Your task to perform on an android device: allow cookies in the chrome app Image 0: 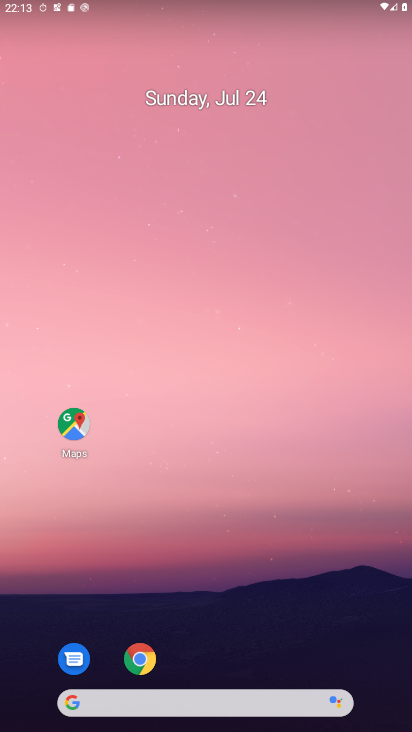
Step 0: drag from (220, 726) to (188, 115)
Your task to perform on an android device: allow cookies in the chrome app Image 1: 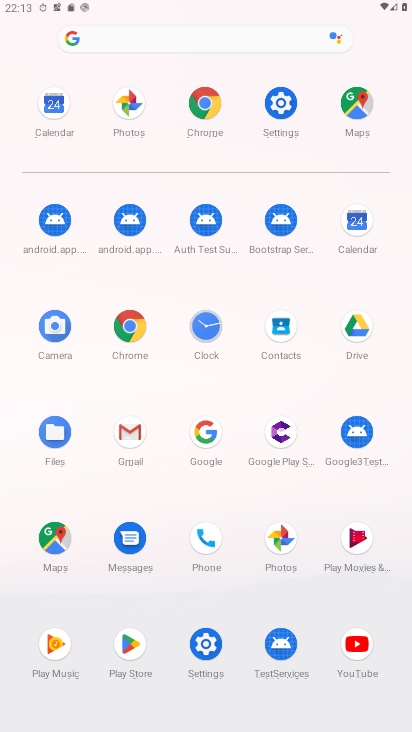
Step 1: click (133, 329)
Your task to perform on an android device: allow cookies in the chrome app Image 2: 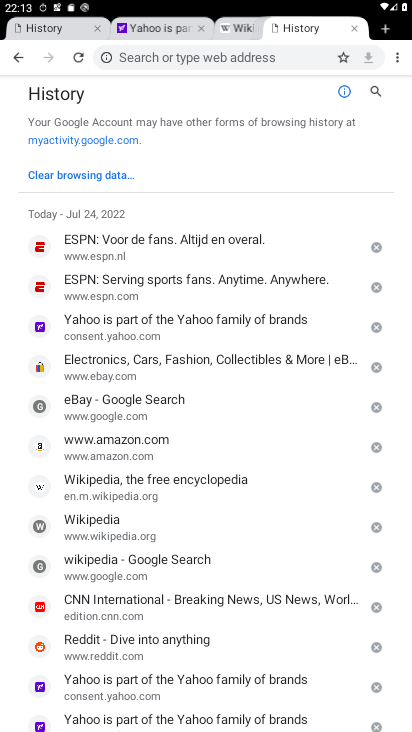
Step 2: click (397, 59)
Your task to perform on an android device: allow cookies in the chrome app Image 3: 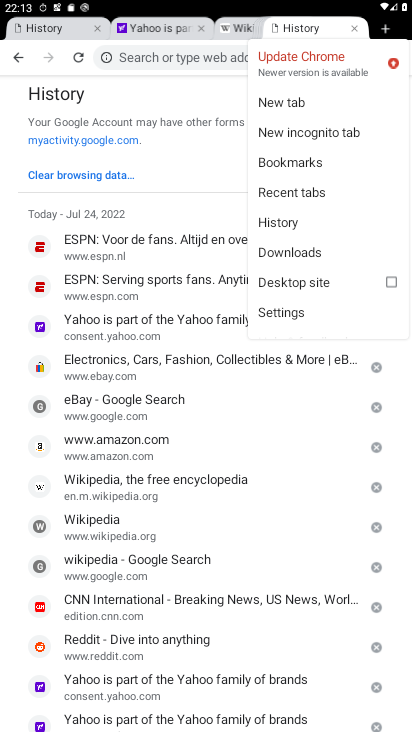
Step 3: click (281, 222)
Your task to perform on an android device: allow cookies in the chrome app Image 4: 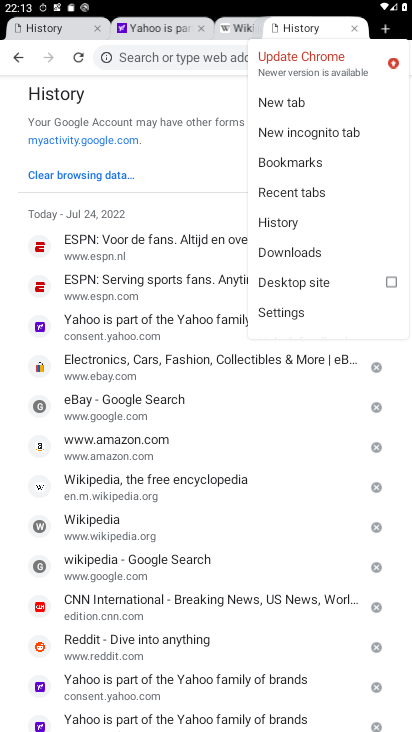
Step 4: click (281, 222)
Your task to perform on an android device: allow cookies in the chrome app Image 5: 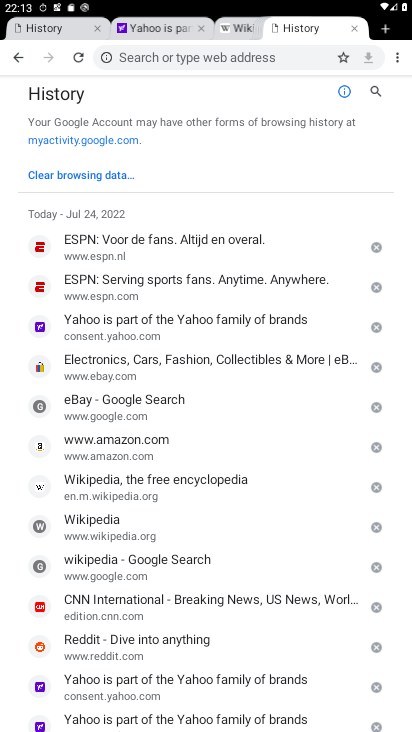
Step 5: click (397, 55)
Your task to perform on an android device: allow cookies in the chrome app Image 6: 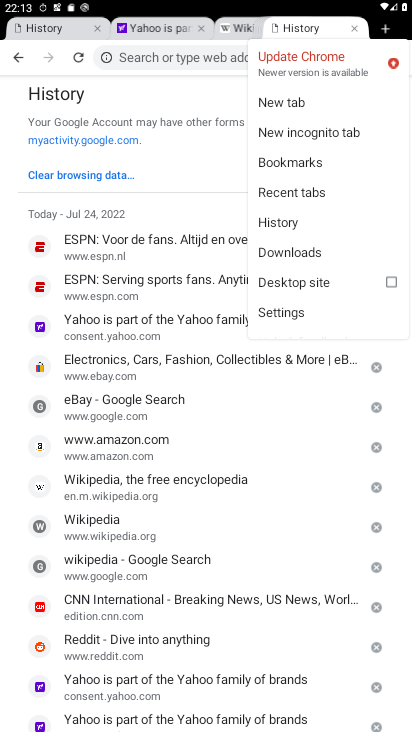
Step 6: click (283, 308)
Your task to perform on an android device: allow cookies in the chrome app Image 7: 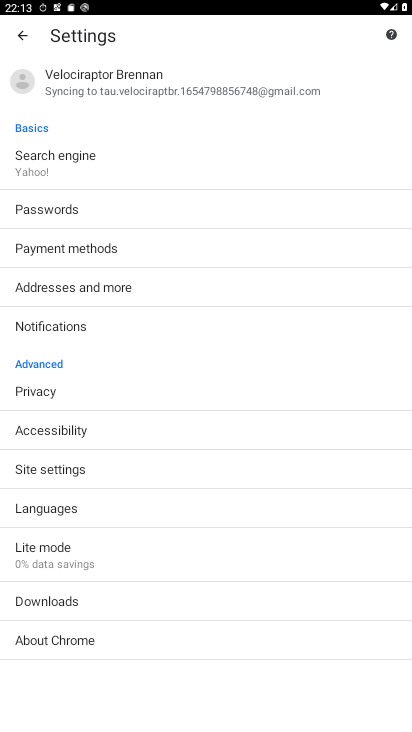
Step 7: click (46, 464)
Your task to perform on an android device: allow cookies in the chrome app Image 8: 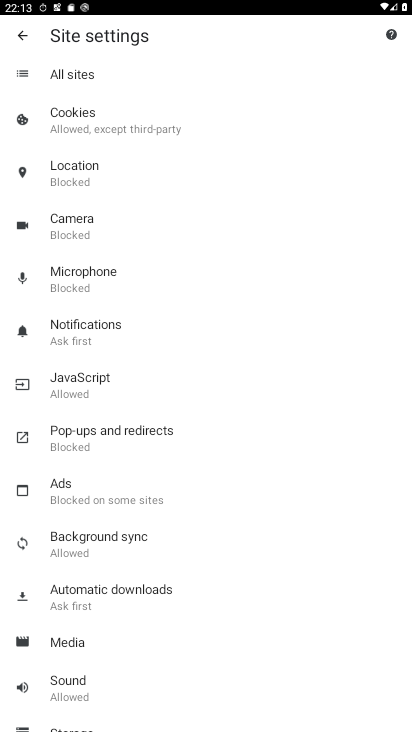
Step 8: click (94, 116)
Your task to perform on an android device: allow cookies in the chrome app Image 9: 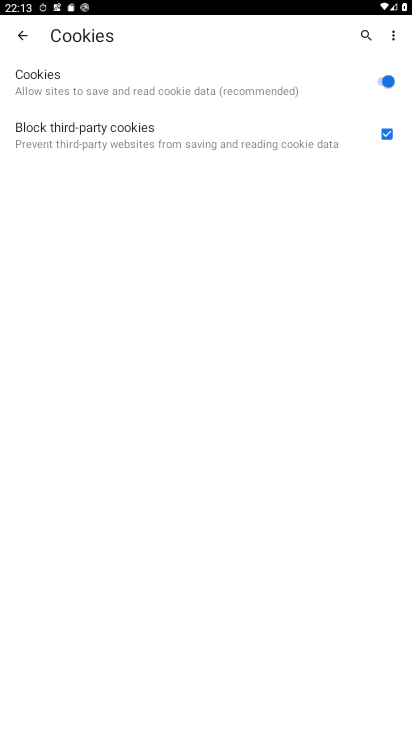
Step 9: task complete